Your task to perform on an android device: change the clock display to analog Image 0: 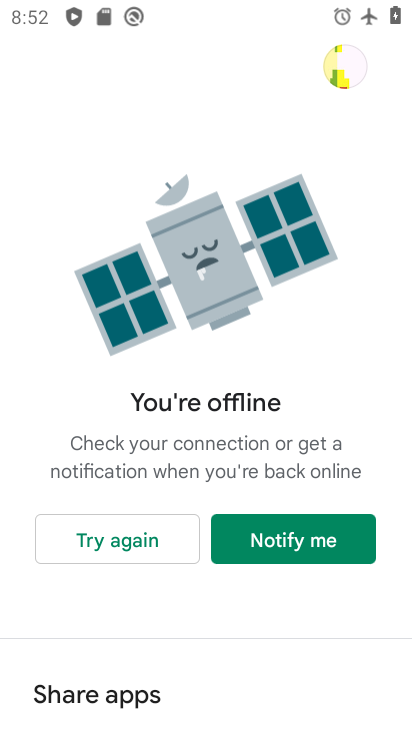
Step 0: press home button
Your task to perform on an android device: change the clock display to analog Image 1: 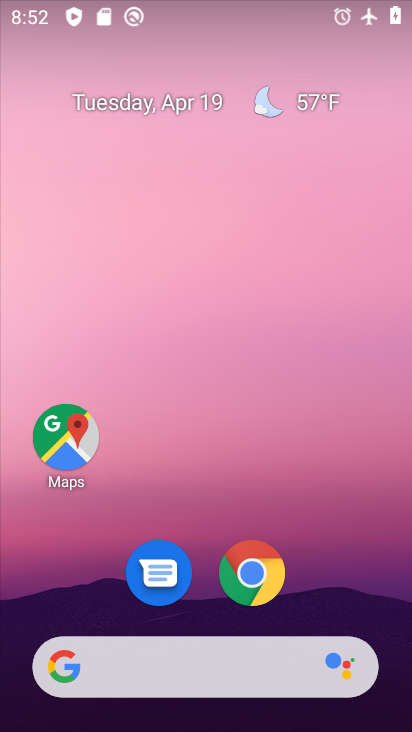
Step 1: drag from (326, 585) to (296, 83)
Your task to perform on an android device: change the clock display to analog Image 2: 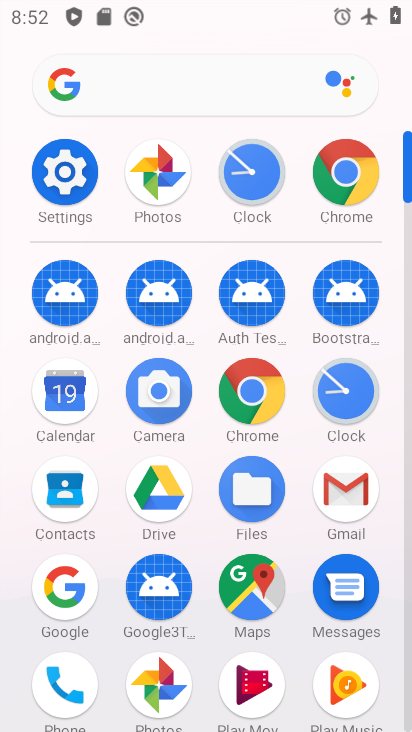
Step 2: click (248, 180)
Your task to perform on an android device: change the clock display to analog Image 3: 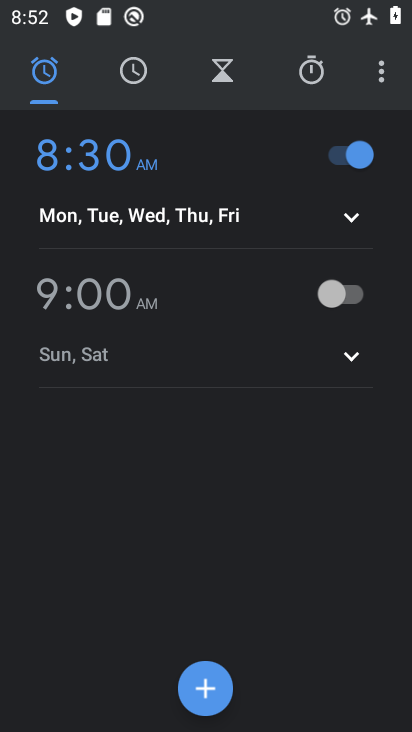
Step 3: click (387, 71)
Your task to perform on an android device: change the clock display to analog Image 4: 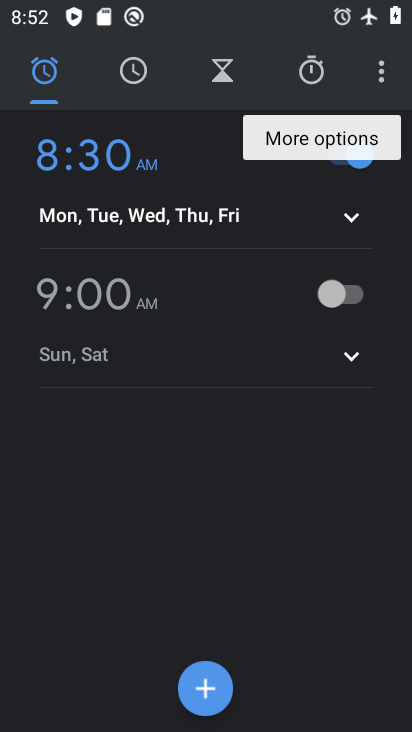
Step 4: click (381, 73)
Your task to perform on an android device: change the clock display to analog Image 5: 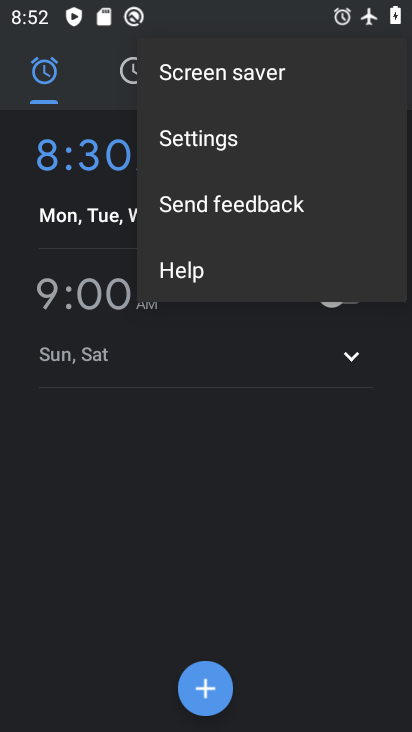
Step 5: click (208, 131)
Your task to perform on an android device: change the clock display to analog Image 6: 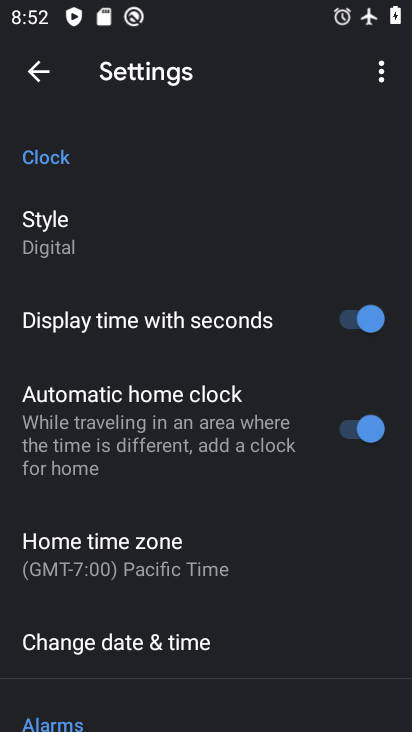
Step 6: click (48, 222)
Your task to perform on an android device: change the clock display to analog Image 7: 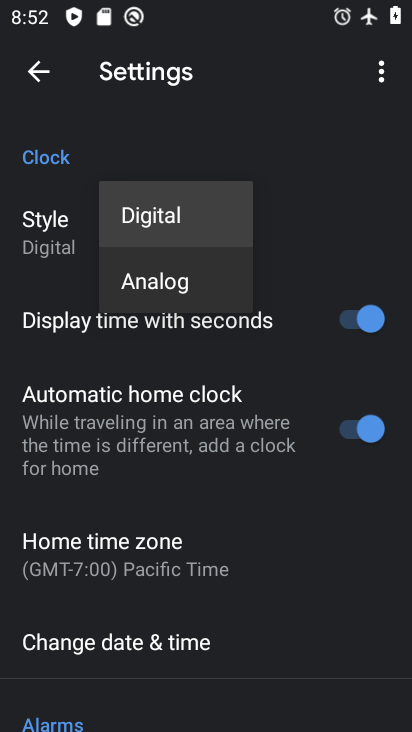
Step 7: click (148, 280)
Your task to perform on an android device: change the clock display to analog Image 8: 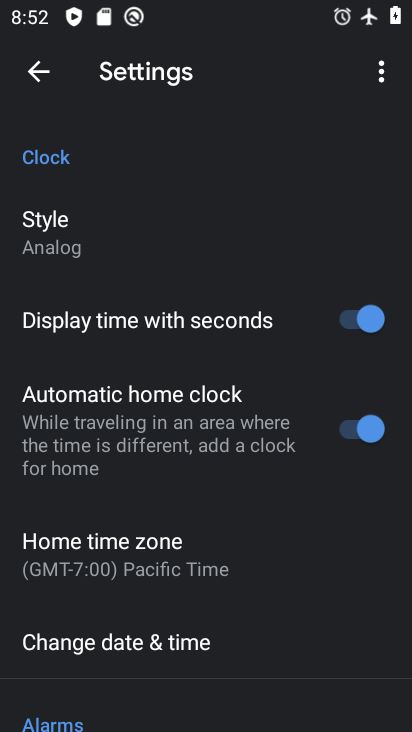
Step 8: task complete